Your task to perform on an android device: stop showing notifications on the lock screen Image 0: 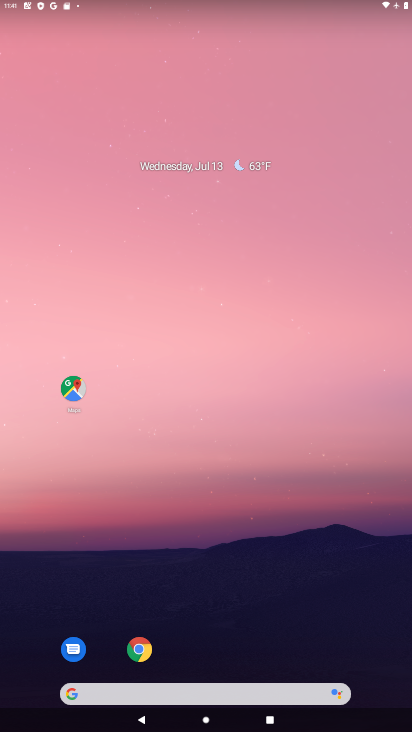
Step 0: drag from (312, 654) to (312, 277)
Your task to perform on an android device: stop showing notifications on the lock screen Image 1: 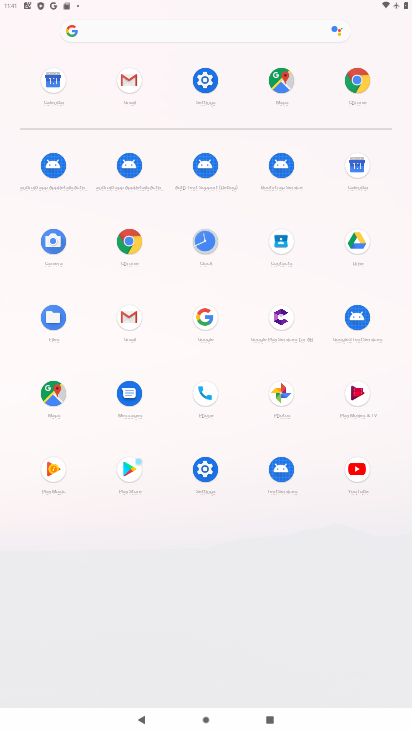
Step 1: click (208, 69)
Your task to perform on an android device: stop showing notifications on the lock screen Image 2: 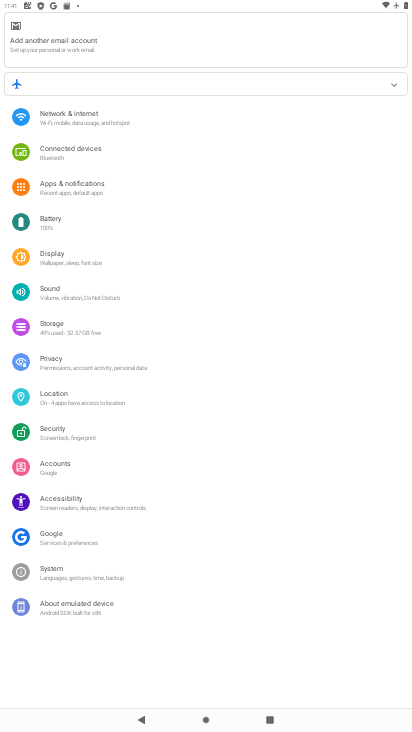
Step 2: click (88, 178)
Your task to perform on an android device: stop showing notifications on the lock screen Image 3: 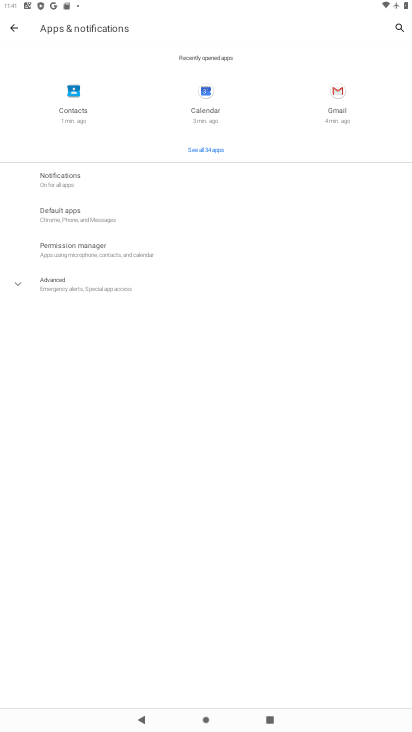
Step 3: click (92, 183)
Your task to perform on an android device: stop showing notifications on the lock screen Image 4: 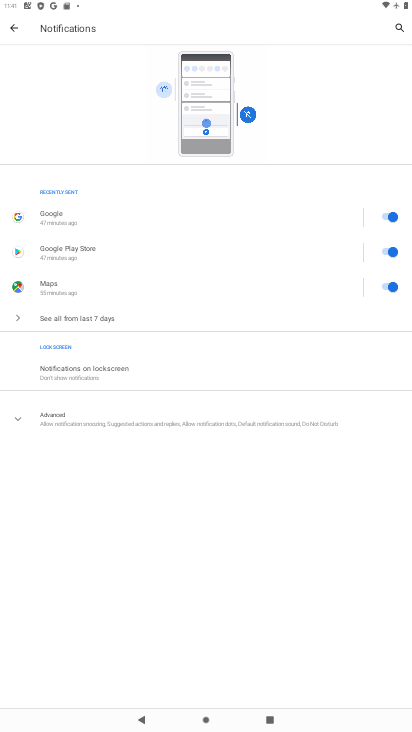
Step 4: click (114, 364)
Your task to perform on an android device: stop showing notifications on the lock screen Image 5: 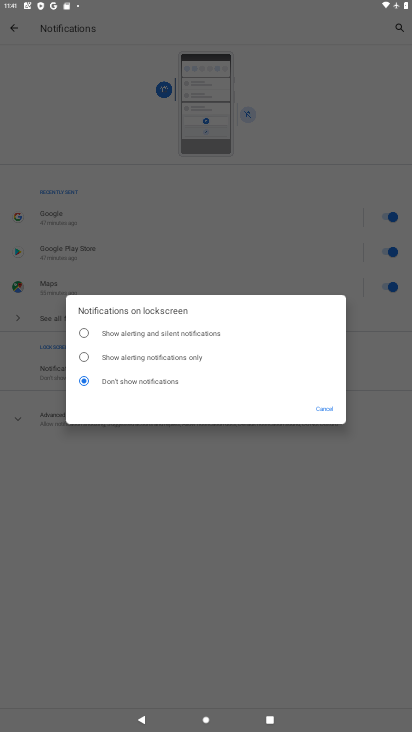
Step 5: task complete